Your task to perform on an android device: turn off airplane mode Image 0: 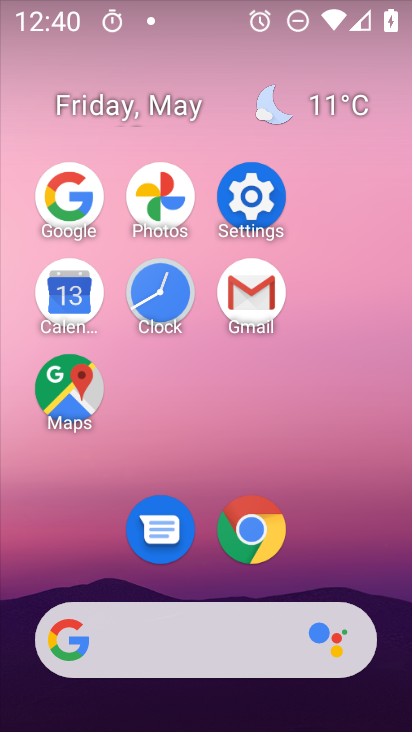
Step 0: click (250, 212)
Your task to perform on an android device: turn off airplane mode Image 1: 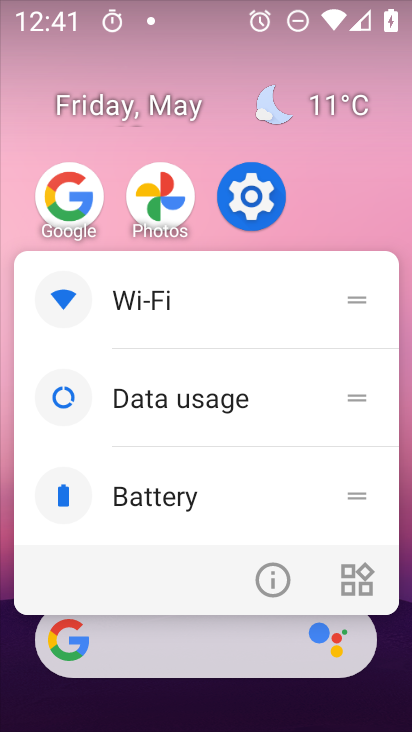
Step 1: click (264, 192)
Your task to perform on an android device: turn off airplane mode Image 2: 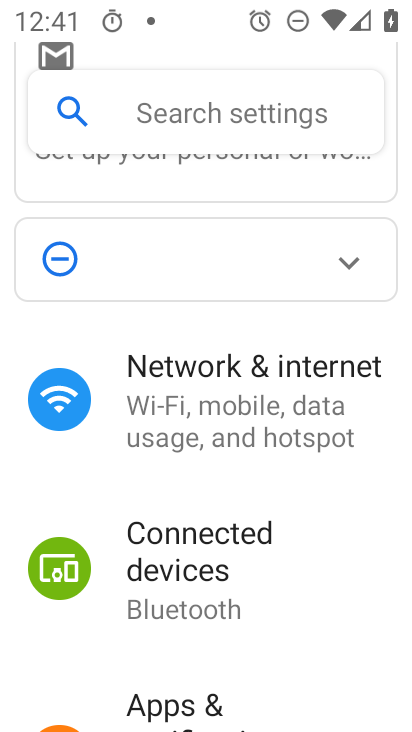
Step 2: click (237, 403)
Your task to perform on an android device: turn off airplane mode Image 3: 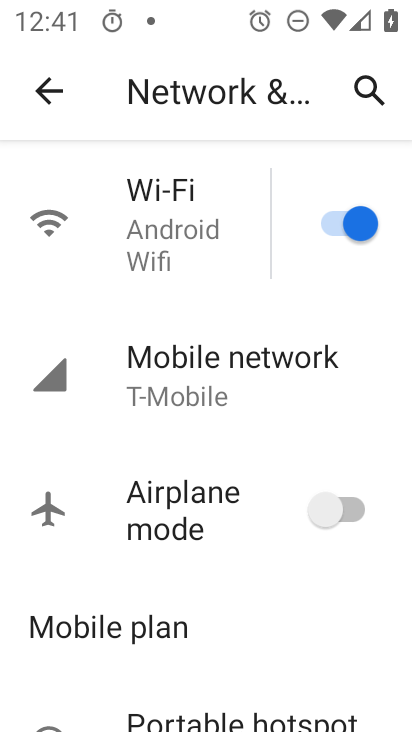
Step 3: task complete